Your task to perform on an android device: find photos in the google photos app Image 0: 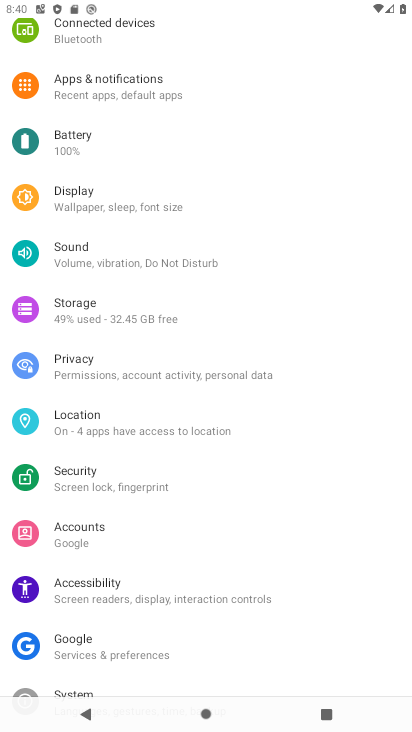
Step 0: press home button
Your task to perform on an android device: find photos in the google photos app Image 1: 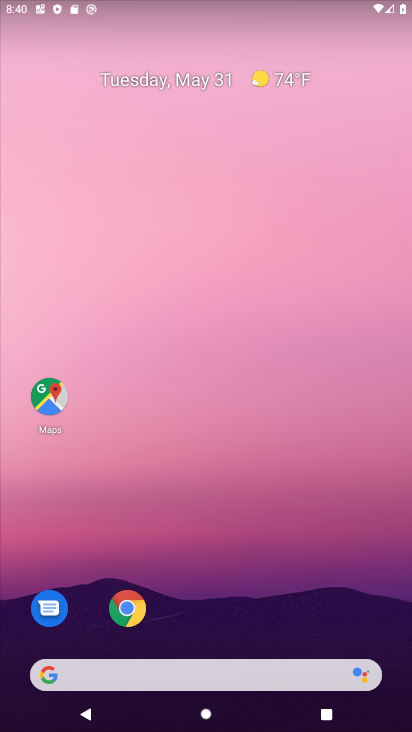
Step 1: drag from (205, 635) to (132, 139)
Your task to perform on an android device: find photos in the google photos app Image 2: 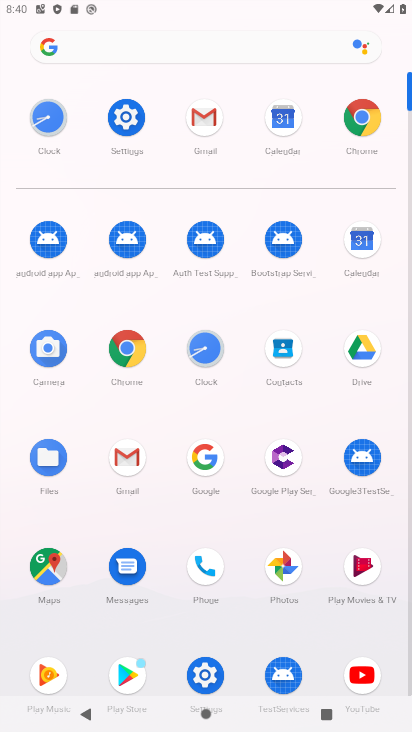
Step 2: click (282, 566)
Your task to perform on an android device: find photos in the google photos app Image 3: 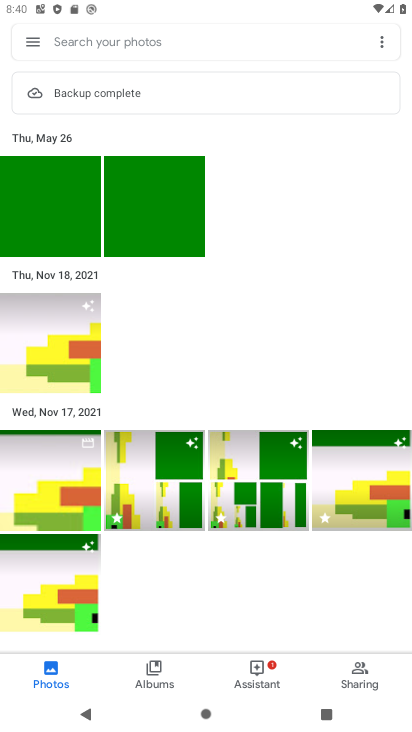
Step 3: task complete